Your task to perform on an android device: turn on location history Image 0: 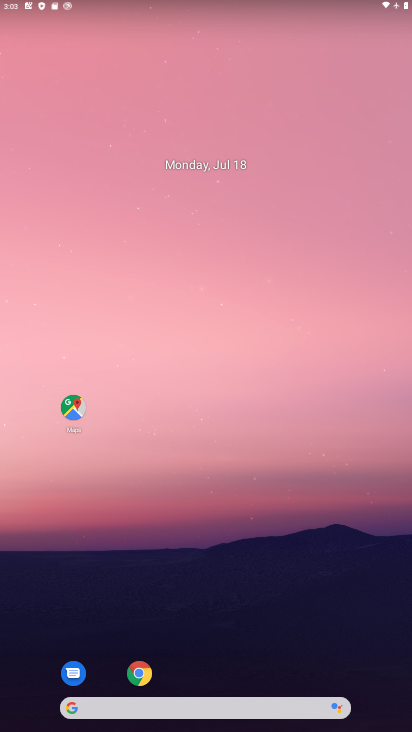
Step 0: drag from (209, 651) to (245, 441)
Your task to perform on an android device: turn on location history Image 1: 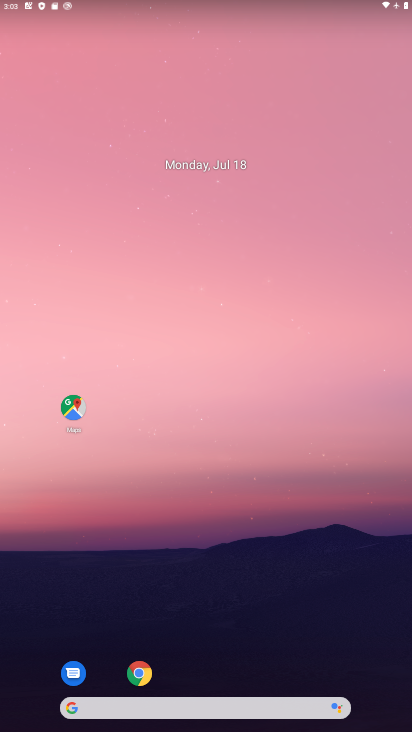
Step 1: drag from (206, 687) to (224, 373)
Your task to perform on an android device: turn on location history Image 2: 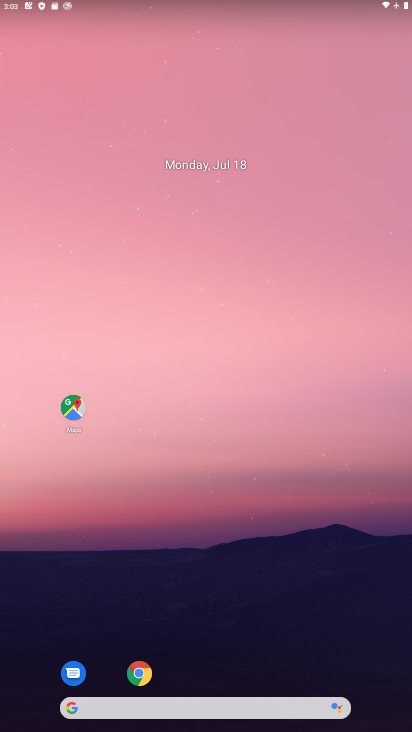
Step 2: drag from (210, 642) to (220, 259)
Your task to perform on an android device: turn on location history Image 3: 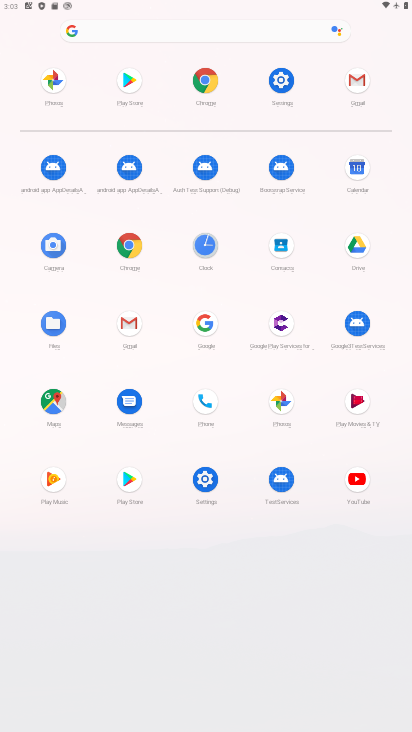
Step 3: click (283, 80)
Your task to perform on an android device: turn on location history Image 4: 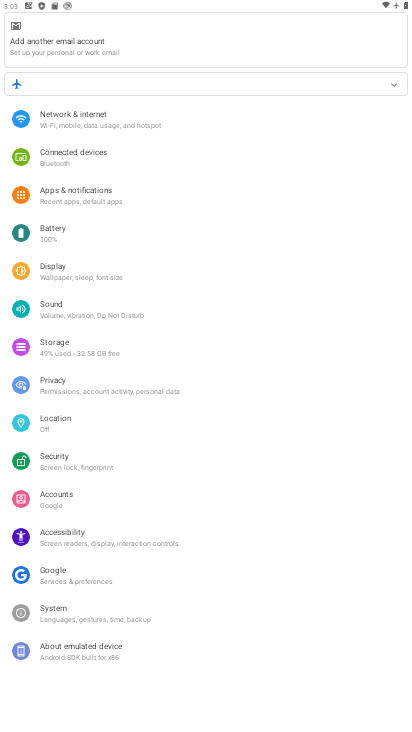
Step 4: click (61, 419)
Your task to perform on an android device: turn on location history Image 5: 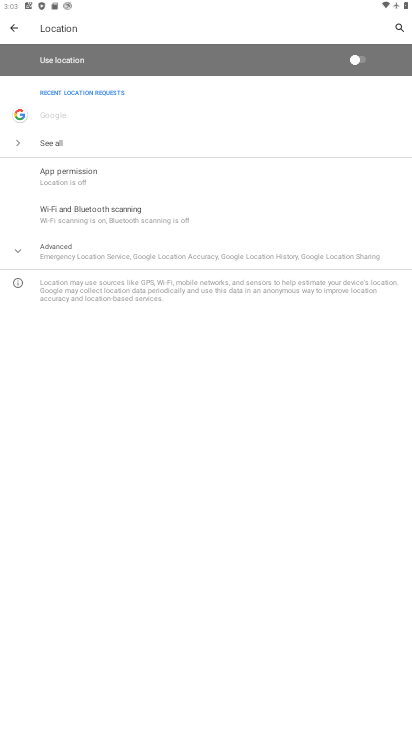
Step 5: click (119, 250)
Your task to perform on an android device: turn on location history Image 6: 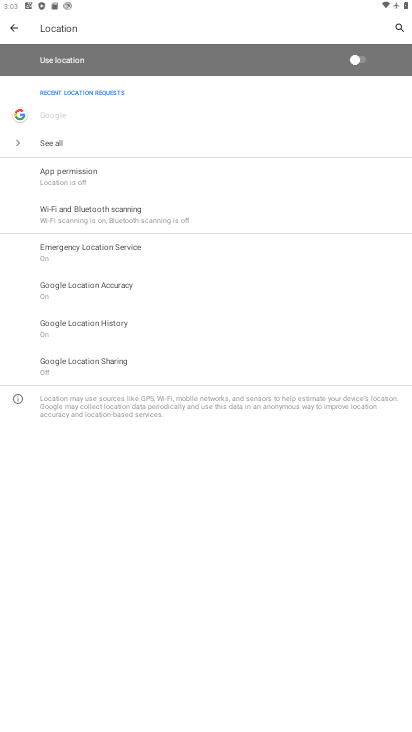
Step 6: click (119, 319)
Your task to perform on an android device: turn on location history Image 7: 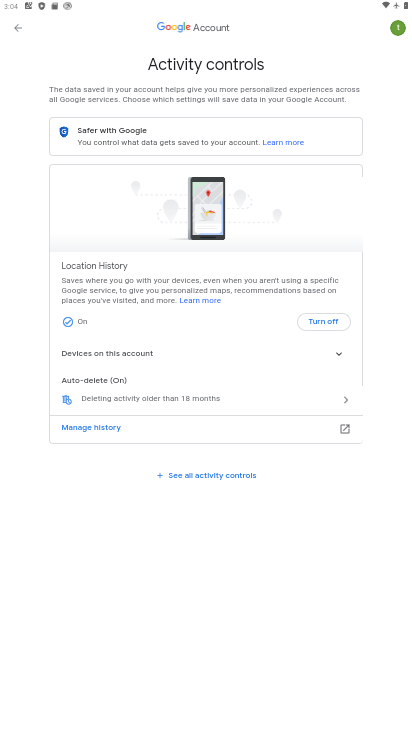
Step 7: click (327, 317)
Your task to perform on an android device: turn on location history Image 8: 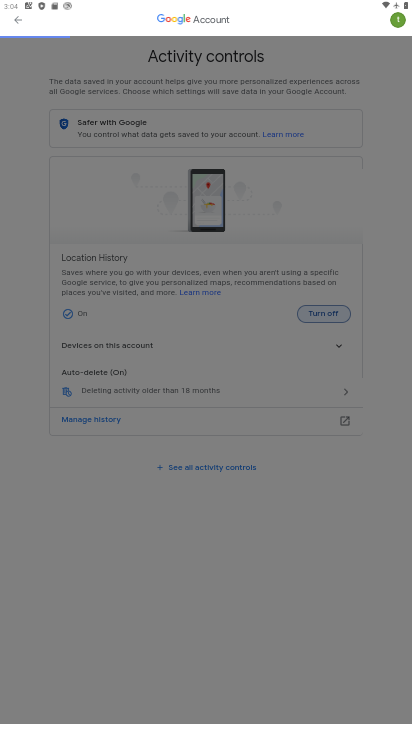
Step 8: click (68, 316)
Your task to perform on an android device: turn on location history Image 9: 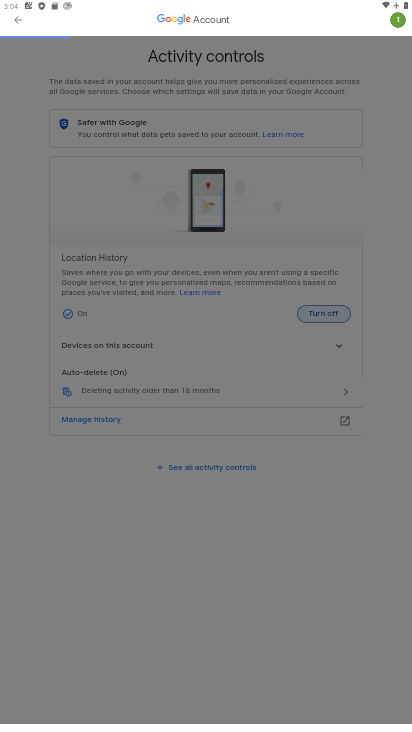
Step 9: click (68, 316)
Your task to perform on an android device: turn on location history Image 10: 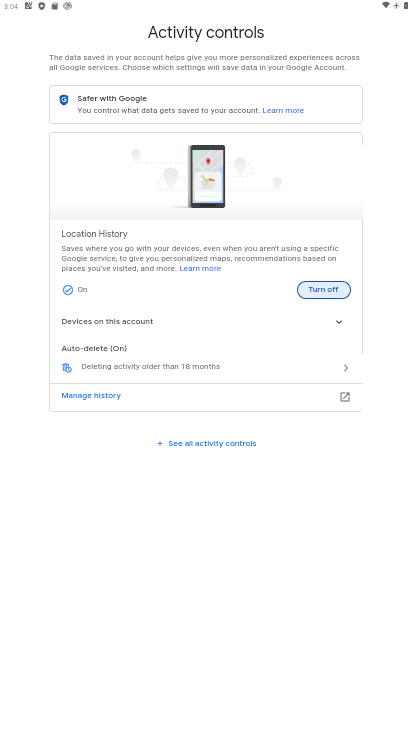
Step 10: click (95, 288)
Your task to perform on an android device: turn on location history Image 11: 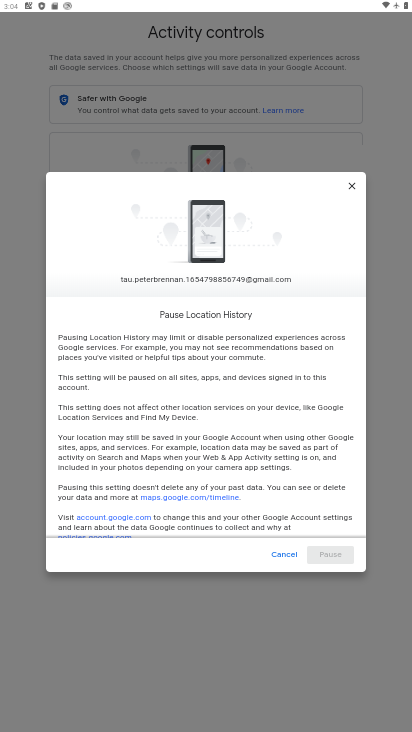
Step 11: click (87, 284)
Your task to perform on an android device: turn on location history Image 12: 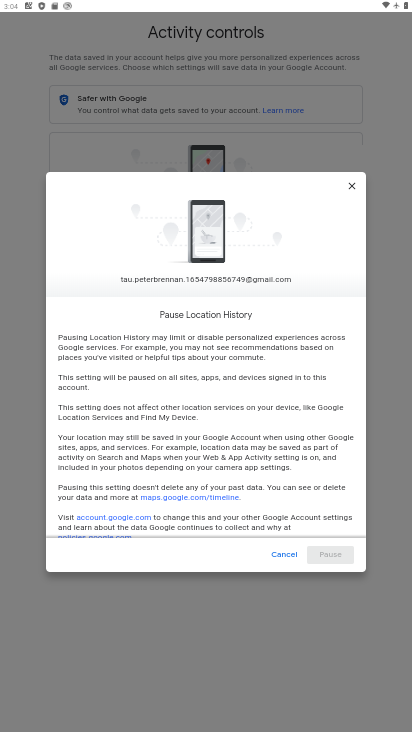
Step 12: click (283, 561)
Your task to perform on an android device: turn on location history Image 13: 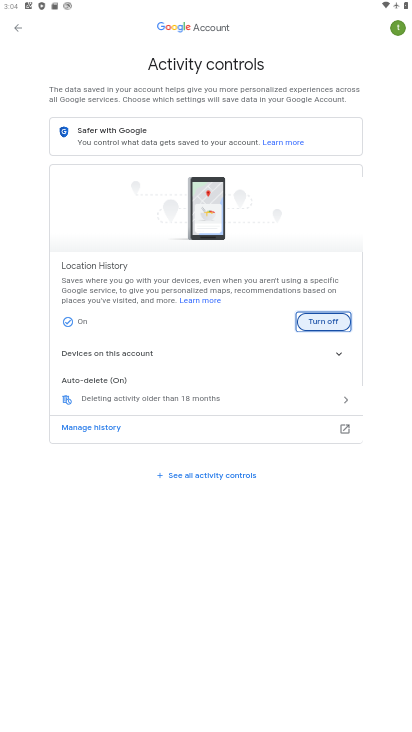
Step 13: task complete